Your task to perform on an android device: Open internet settings Image 0: 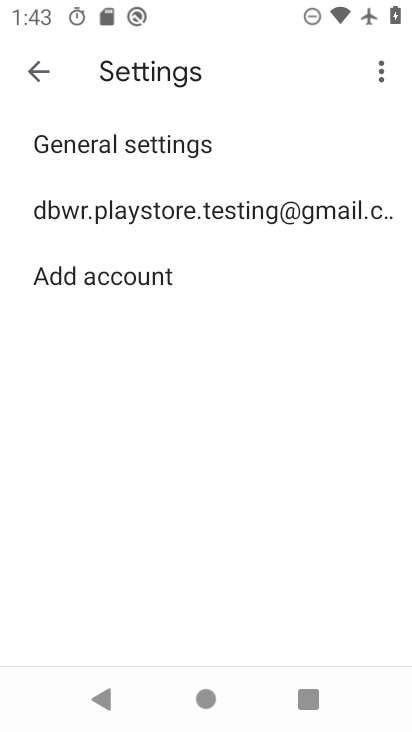
Step 0: press home button
Your task to perform on an android device: Open internet settings Image 1: 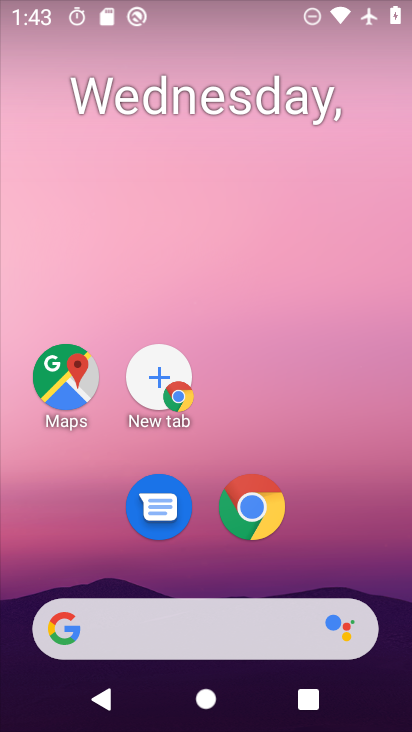
Step 1: drag from (338, 483) to (334, 73)
Your task to perform on an android device: Open internet settings Image 2: 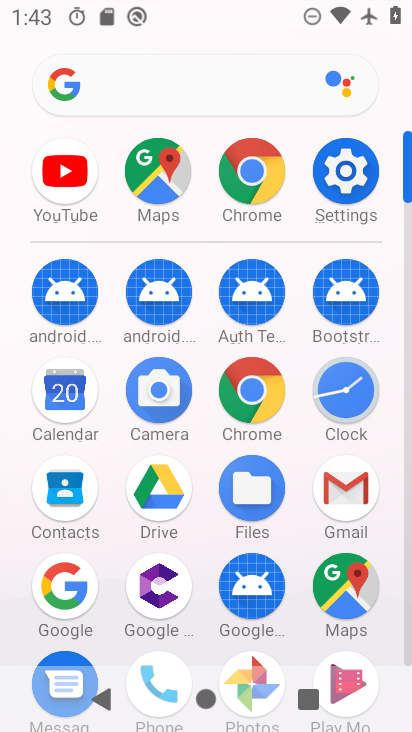
Step 2: click (351, 177)
Your task to perform on an android device: Open internet settings Image 3: 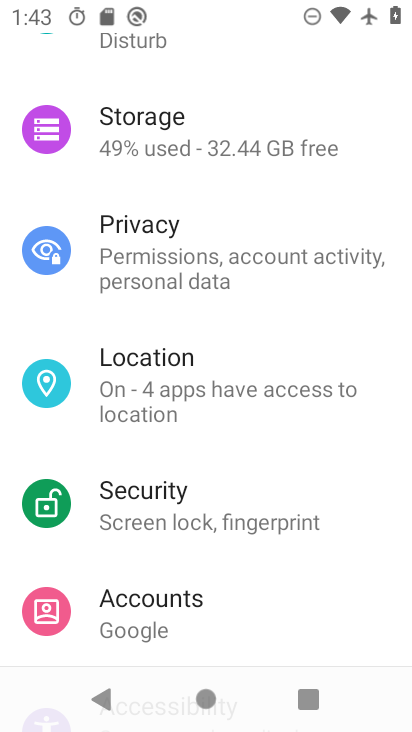
Step 3: drag from (252, 186) to (270, 490)
Your task to perform on an android device: Open internet settings Image 4: 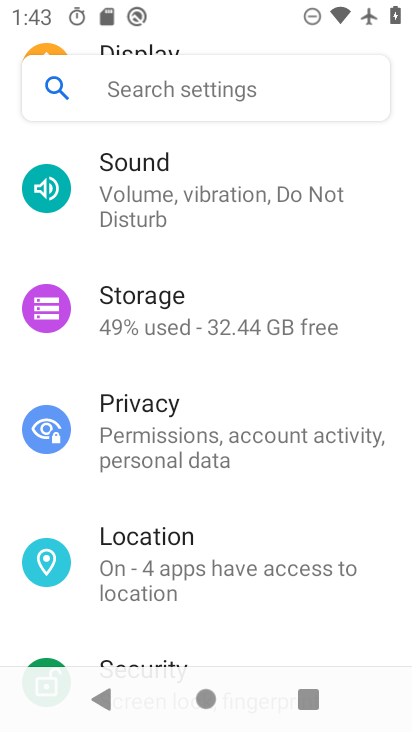
Step 4: drag from (249, 218) to (247, 526)
Your task to perform on an android device: Open internet settings Image 5: 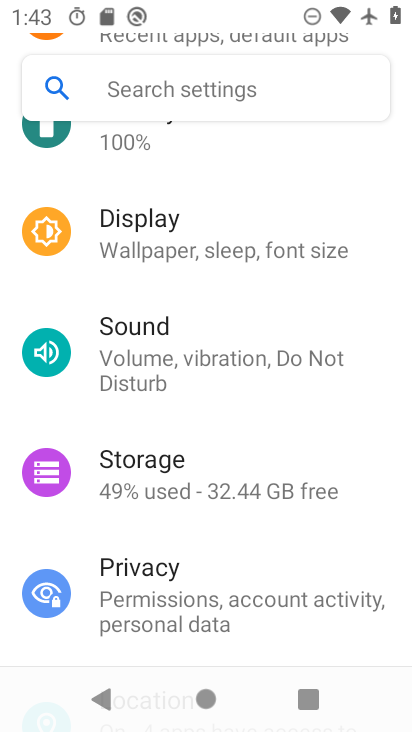
Step 5: drag from (254, 264) to (264, 537)
Your task to perform on an android device: Open internet settings Image 6: 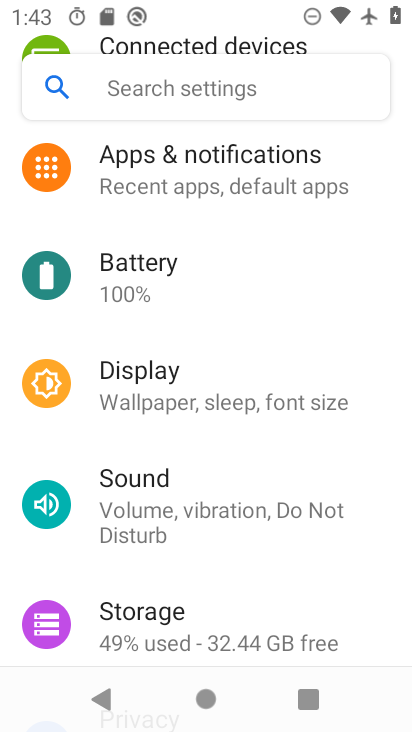
Step 6: drag from (261, 327) to (258, 560)
Your task to perform on an android device: Open internet settings Image 7: 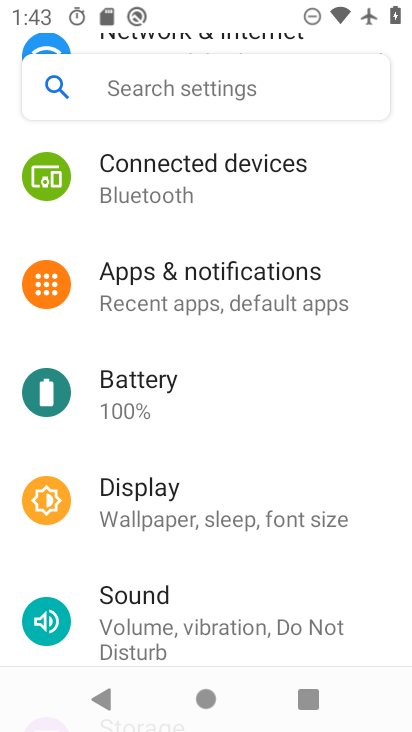
Step 7: drag from (265, 274) to (285, 580)
Your task to perform on an android device: Open internet settings Image 8: 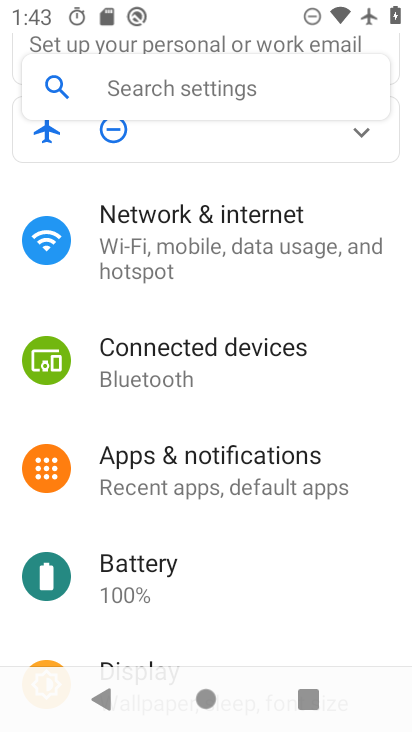
Step 8: click (238, 206)
Your task to perform on an android device: Open internet settings Image 9: 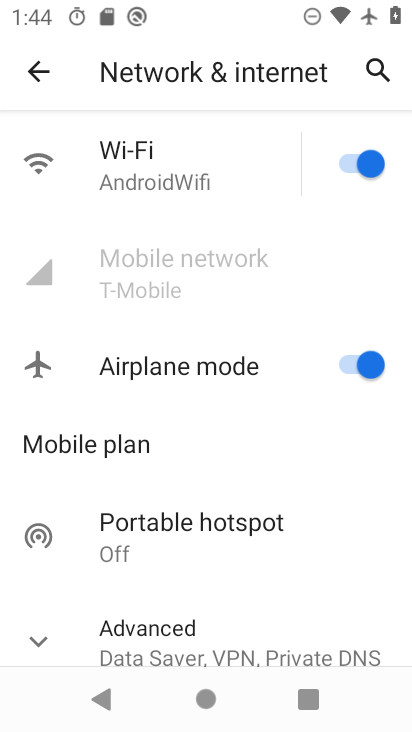
Step 9: click (232, 266)
Your task to perform on an android device: Open internet settings Image 10: 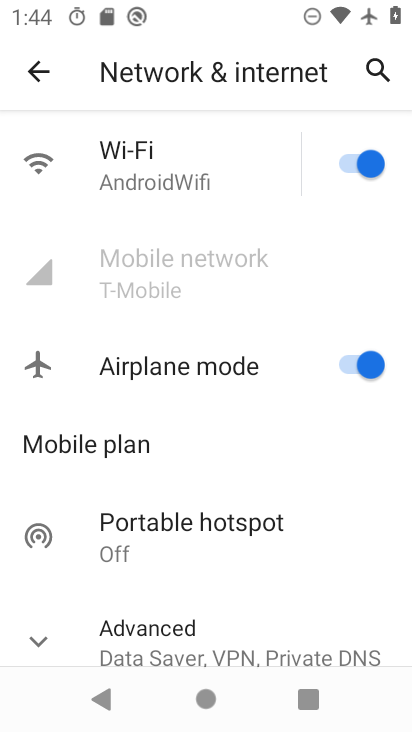
Step 10: task complete